Your task to perform on an android device: change the clock display to show seconds Image 0: 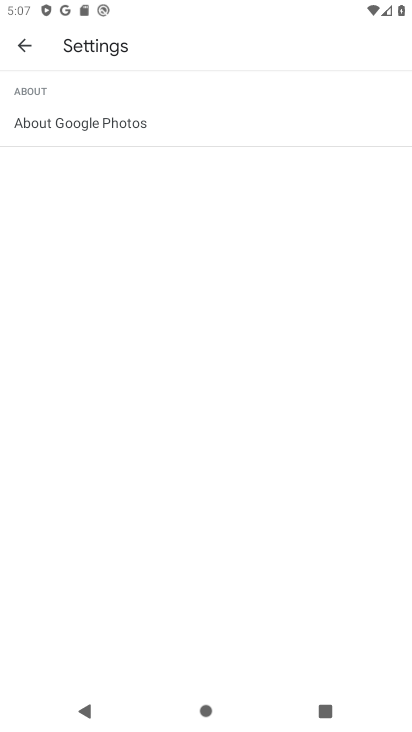
Step 0: press home button
Your task to perform on an android device: change the clock display to show seconds Image 1: 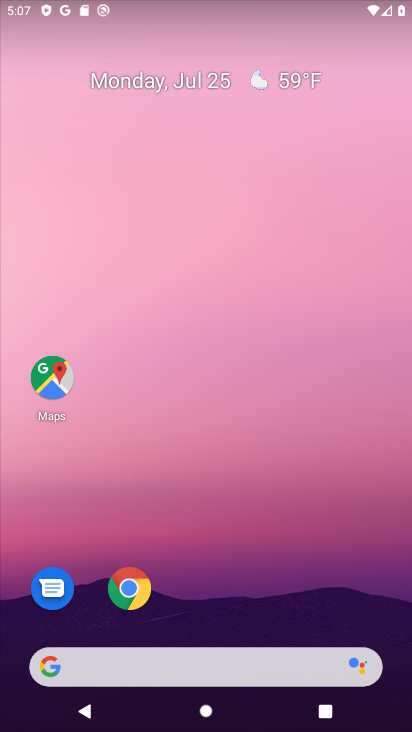
Step 1: drag from (263, 544) to (250, 282)
Your task to perform on an android device: change the clock display to show seconds Image 2: 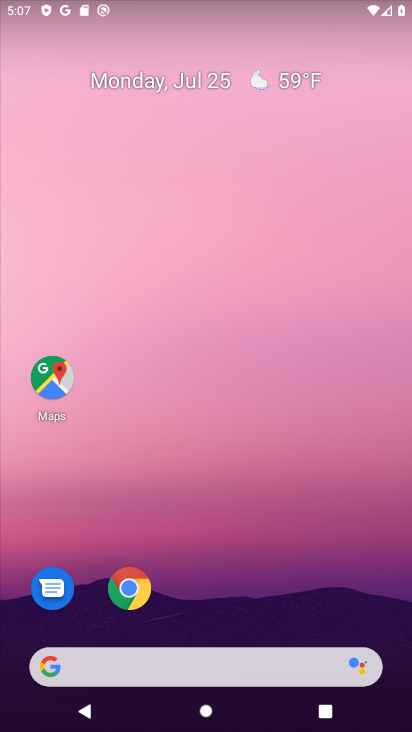
Step 2: drag from (266, 501) to (242, 73)
Your task to perform on an android device: change the clock display to show seconds Image 3: 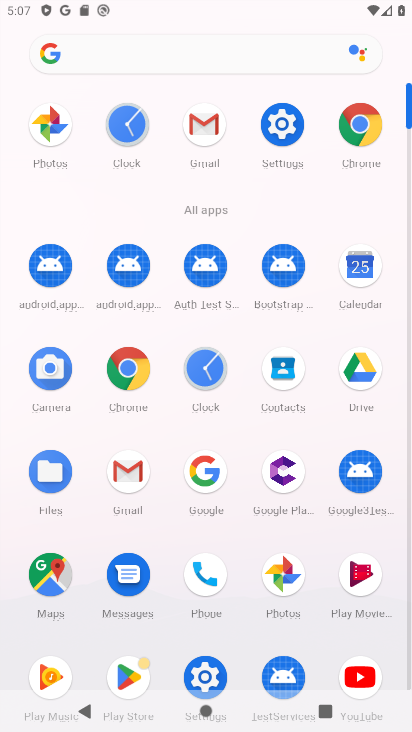
Step 3: click (288, 121)
Your task to perform on an android device: change the clock display to show seconds Image 4: 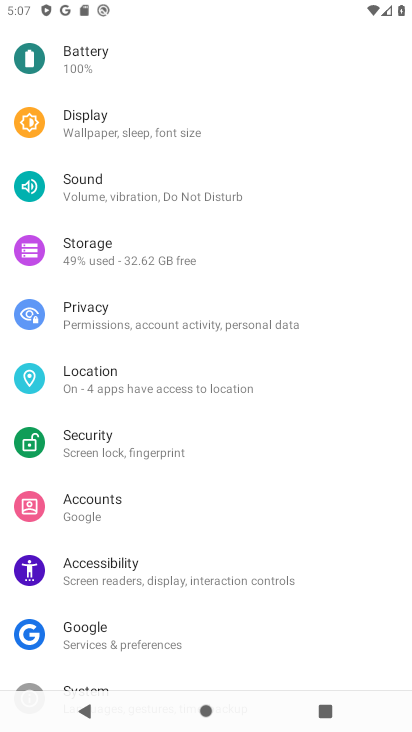
Step 4: drag from (330, 191) to (341, 350)
Your task to perform on an android device: change the clock display to show seconds Image 5: 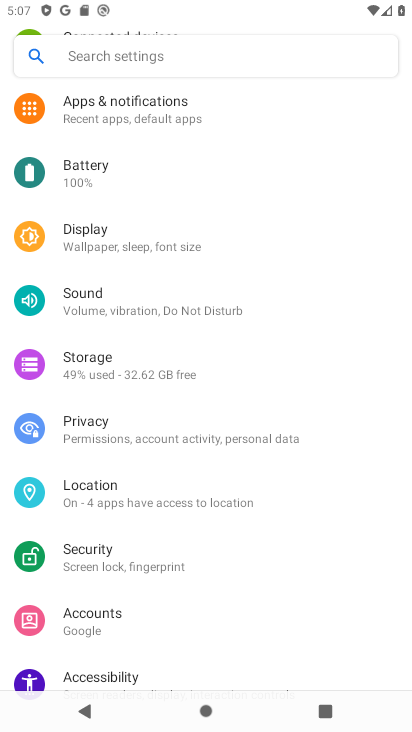
Step 5: drag from (372, 167) to (353, 540)
Your task to perform on an android device: change the clock display to show seconds Image 6: 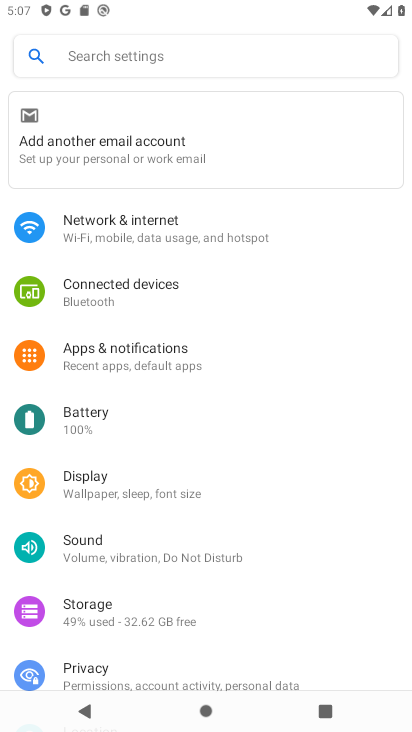
Step 6: click (148, 236)
Your task to perform on an android device: change the clock display to show seconds Image 7: 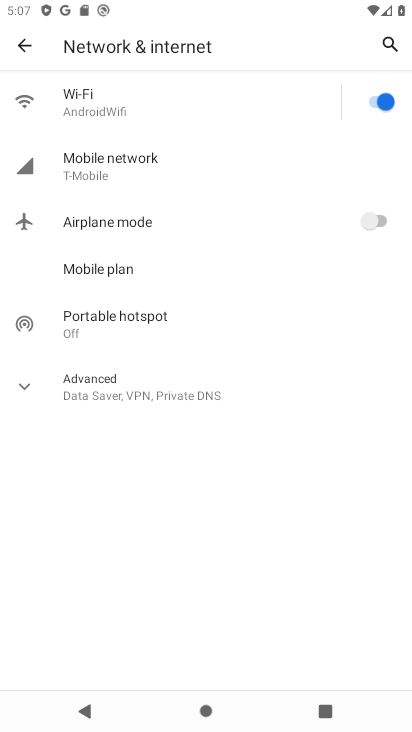
Step 7: task complete